Your task to perform on an android device: toggle wifi Image 0: 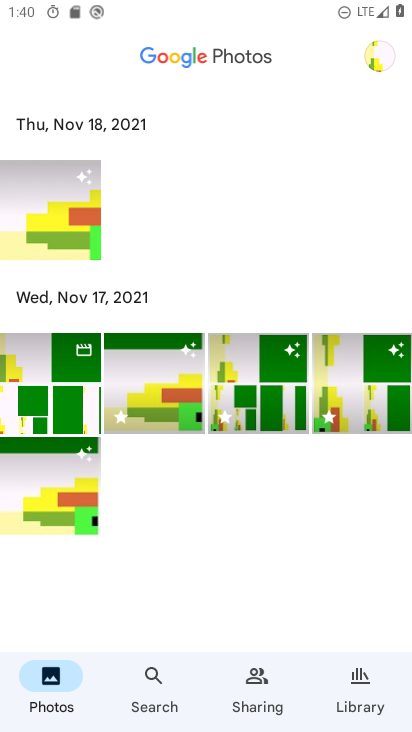
Step 0: press home button
Your task to perform on an android device: toggle wifi Image 1: 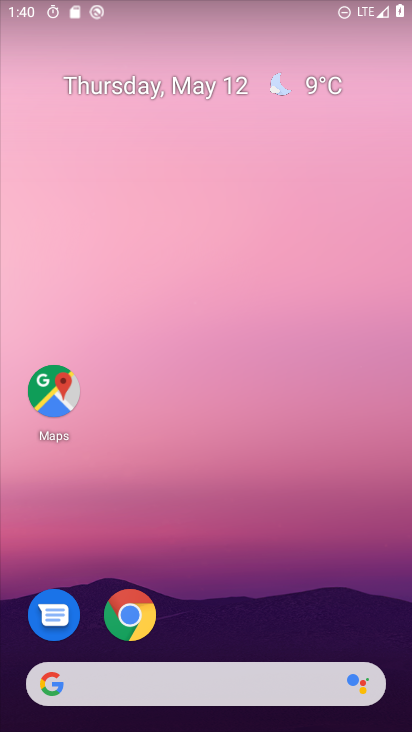
Step 1: drag from (205, 6) to (208, 658)
Your task to perform on an android device: toggle wifi Image 2: 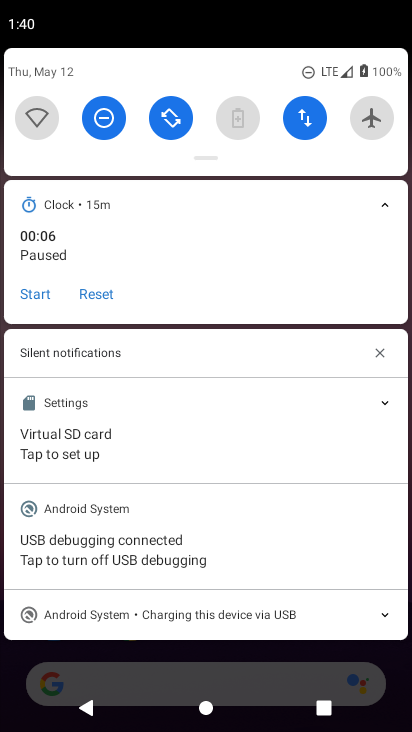
Step 2: click (40, 108)
Your task to perform on an android device: toggle wifi Image 3: 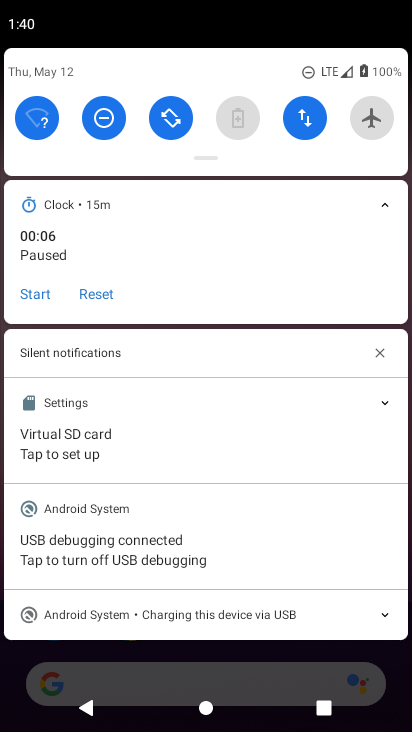
Step 3: task complete